Your task to perform on an android device: Open Chrome and go to settings Image 0: 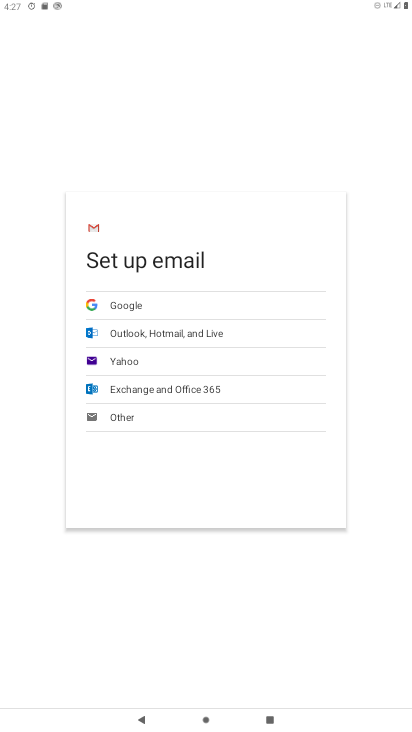
Step 0: press home button
Your task to perform on an android device: Open Chrome and go to settings Image 1: 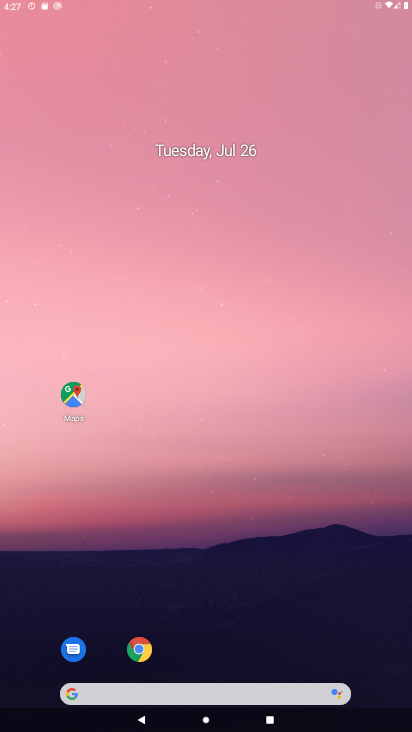
Step 1: drag from (372, 683) to (241, 61)
Your task to perform on an android device: Open Chrome and go to settings Image 2: 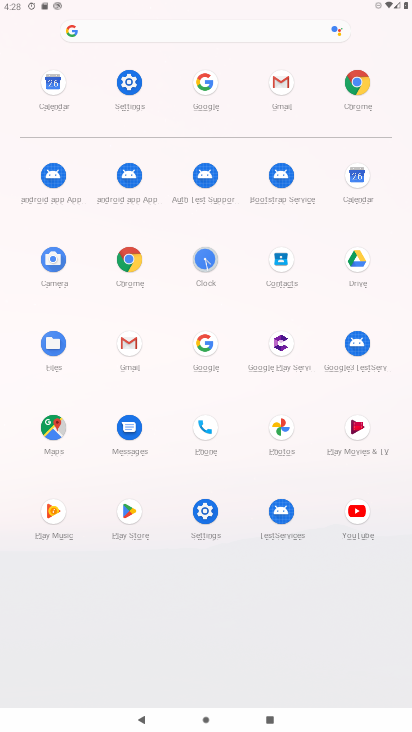
Step 2: click (128, 263)
Your task to perform on an android device: Open Chrome and go to settings Image 3: 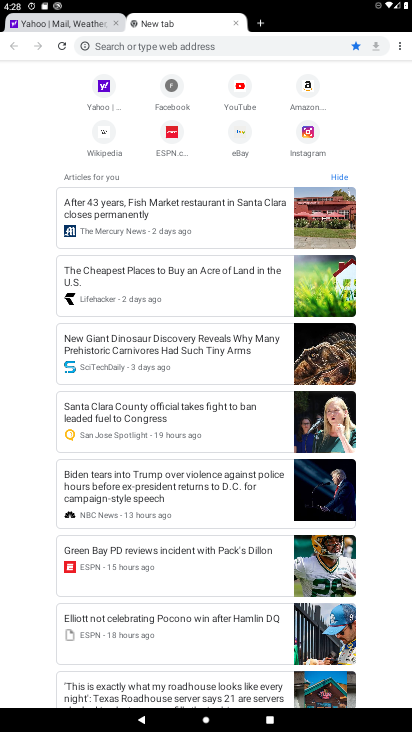
Step 3: click (399, 48)
Your task to perform on an android device: Open Chrome and go to settings Image 4: 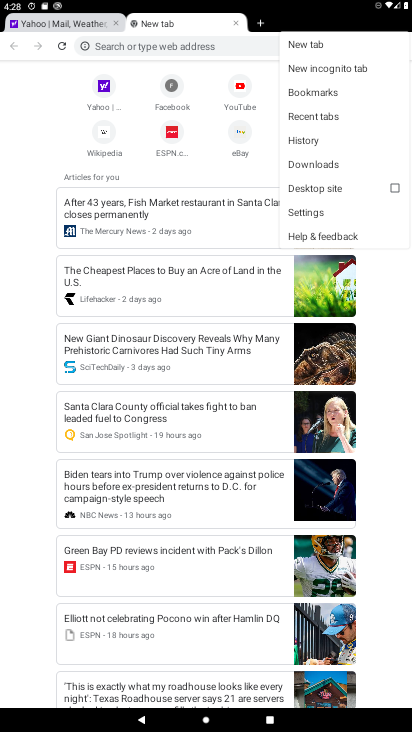
Step 4: click (328, 218)
Your task to perform on an android device: Open Chrome and go to settings Image 5: 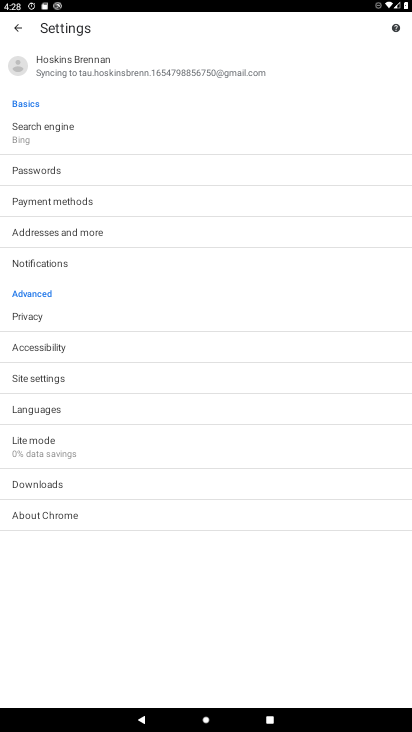
Step 5: task complete